Your task to perform on an android device: check google app version Image 0: 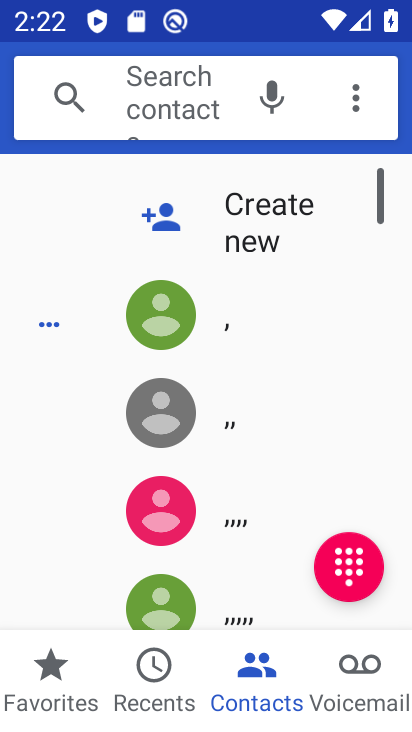
Step 0: press back button
Your task to perform on an android device: check google app version Image 1: 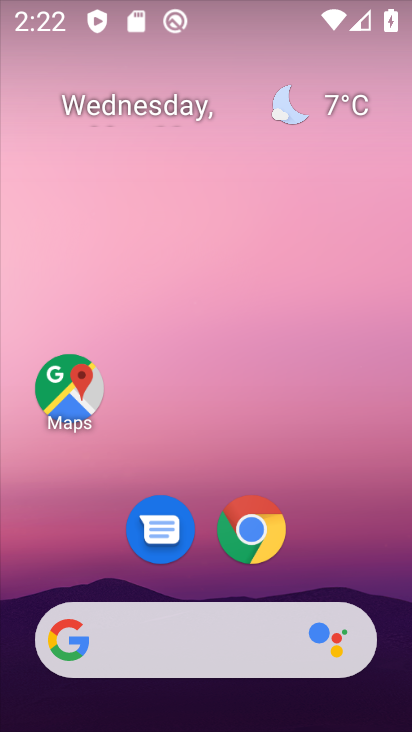
Step 1: drag from (27, 565) to (391, 119)
Your task to perform on an android device: check google app version Image 2: 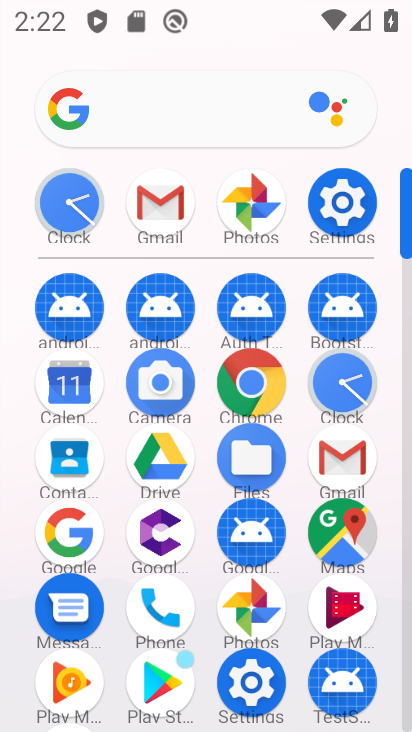
Step 2: click (253, 538)
Your task to perform on an android device: check google app version Image 3: 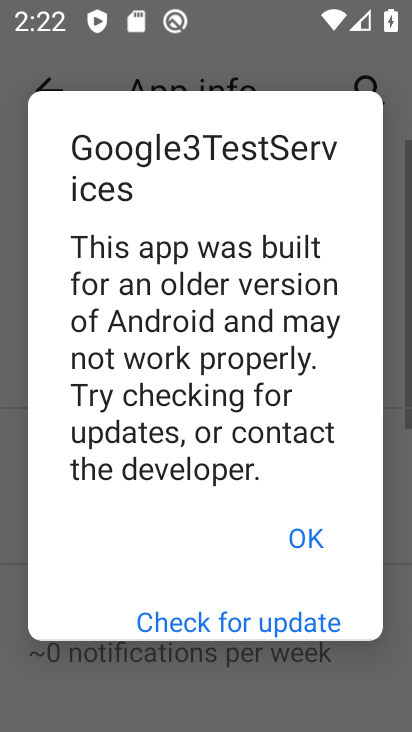
Step 3: click (307, 536)
Your task to perform on an android device: check google app version Image 4: 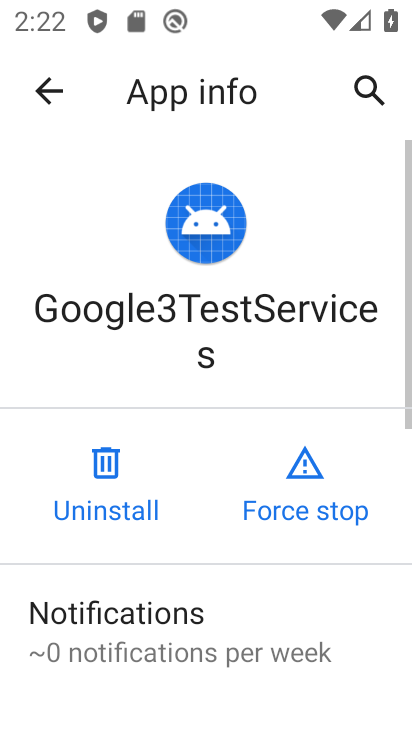
Step 4: drag from (55, 690) to (306, 144)
Your task to perform on an android device: check google app version Image 5: 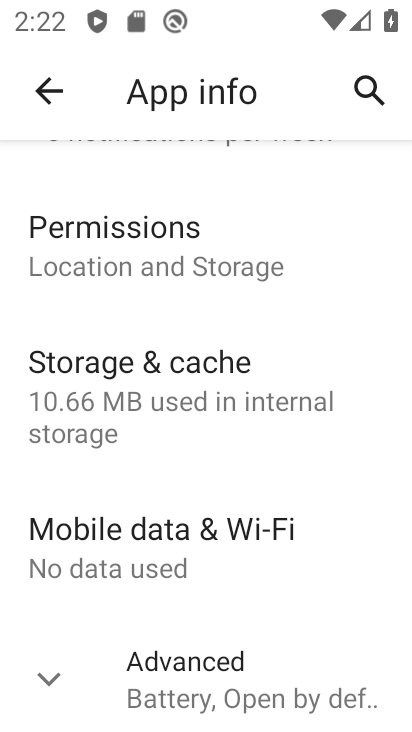
Step 5: drag from (106, 650) to (289, 176)
Your task to perform on an android device: check google app version Image 6: 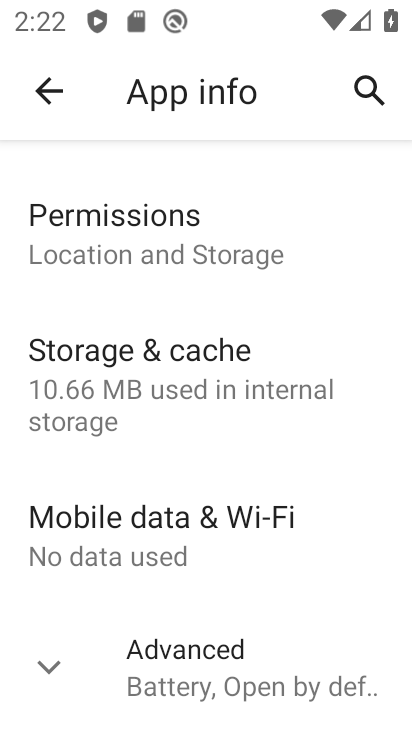
Step 6: click (158, 665)
Your task to perform on an android device: check google app version Image 7: 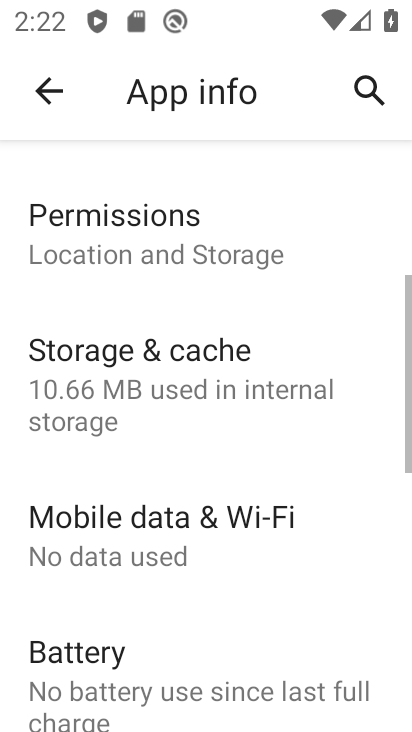
Step 7: drag from (48, 692) to (285, 189)
Your task to perform on an android device: check google app version Image 8: 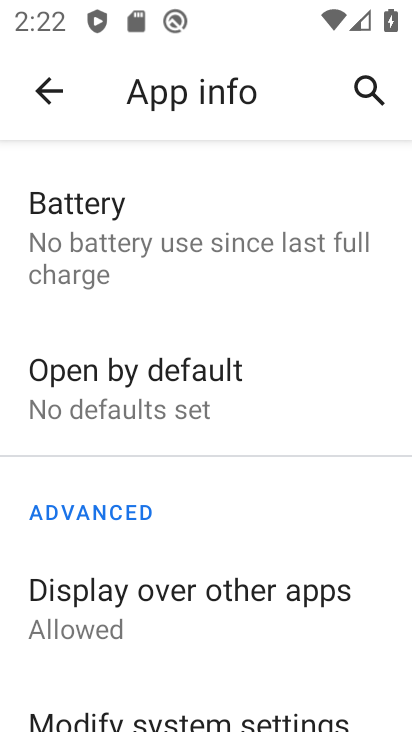
Step 8: drag from (125, 651) to (278, 234)
Your task to perform on an android device: check google app version Image 9: 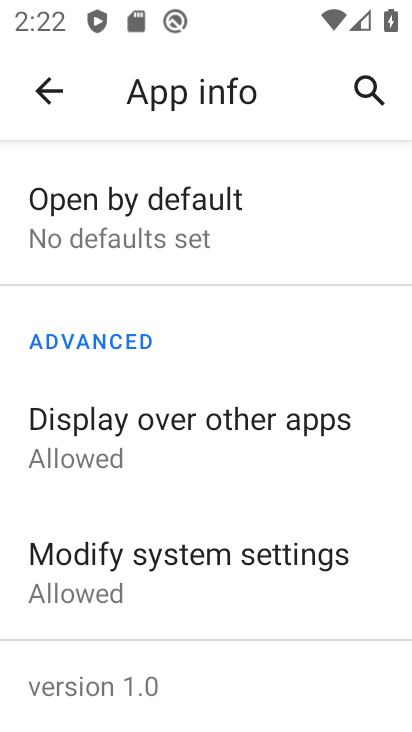
Step 9: click (97, 677)
Your task to perform on an android device: check google app version Image 10: 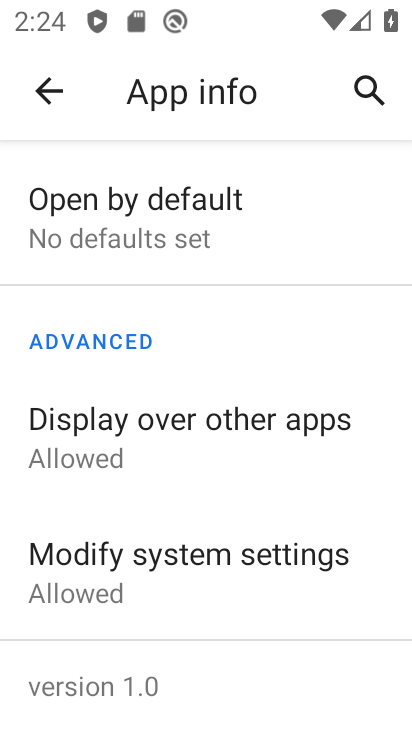
Step 10: task complete